Your task to perform on an android device: Check the news Image 0: 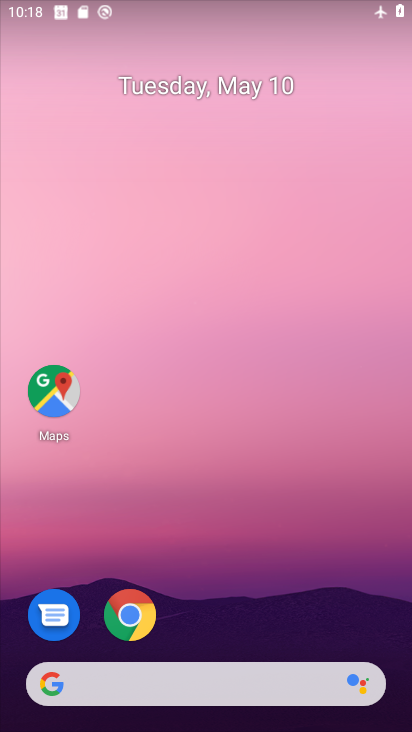
Step 0: drag from (218, 529) to (280, 50)
Your task to perform on an android device: Check the news Image 1: 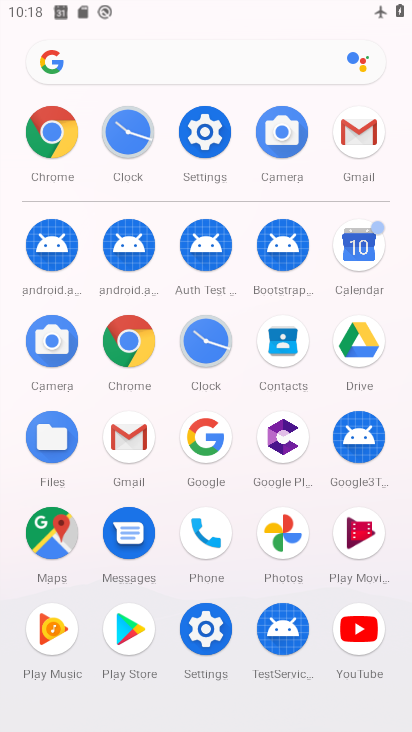
Step 1: click (173, 57)
Your task to perform on an android device: Check the news Image 2: 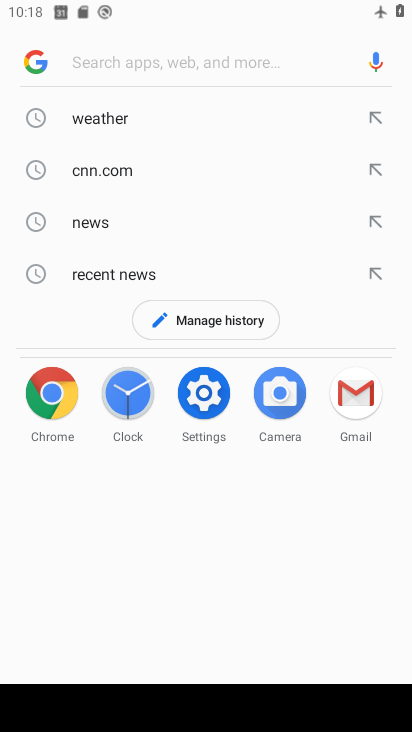
Step 2: click (100, 217)
Your task to perform on an android device: Check the news Image 3: 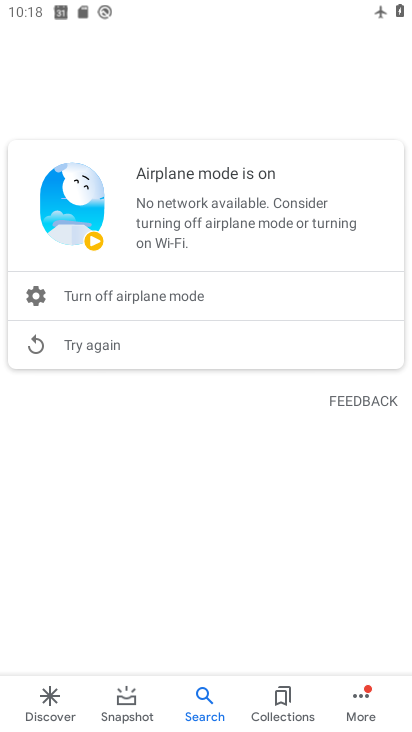
Step 3: task complete